Your task to perform on an android device: turn on data saver in the chrome app Image 0: 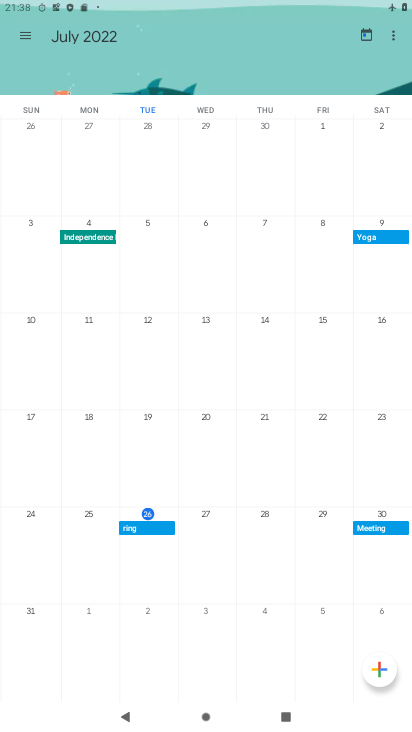
Step 0: drag from (215, 623) to (262, 150)
Your task to perform on an android device: turn on data saver in the chrome app Image 1: 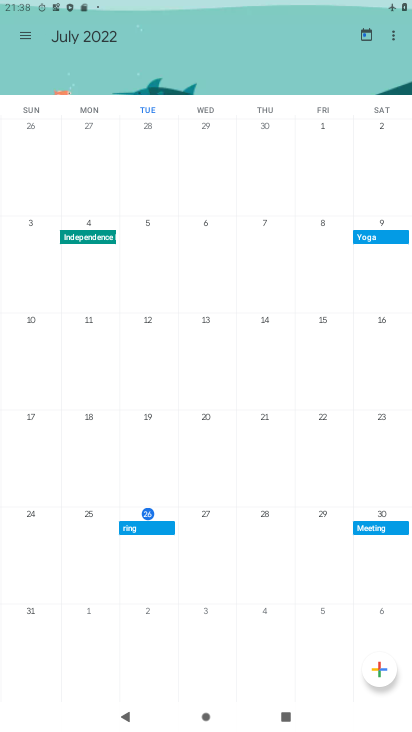
Step 1: press back button
Your task to perform on an android device: turn on data saver in the chrome app Image 2: 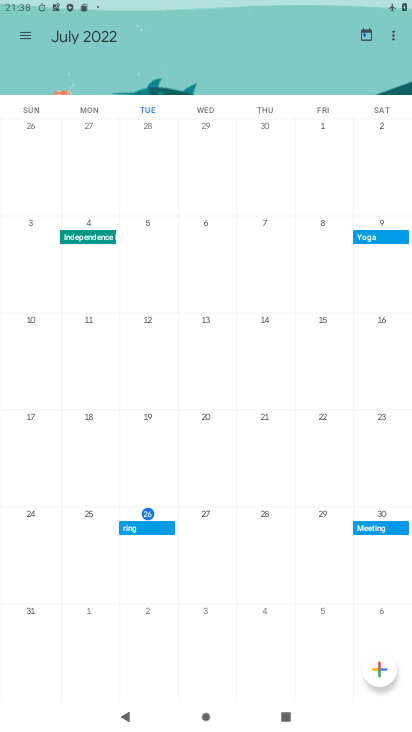
Step 2: press back button
Your task to perform on an android device: turn on data saver in the chrome app Image 3: 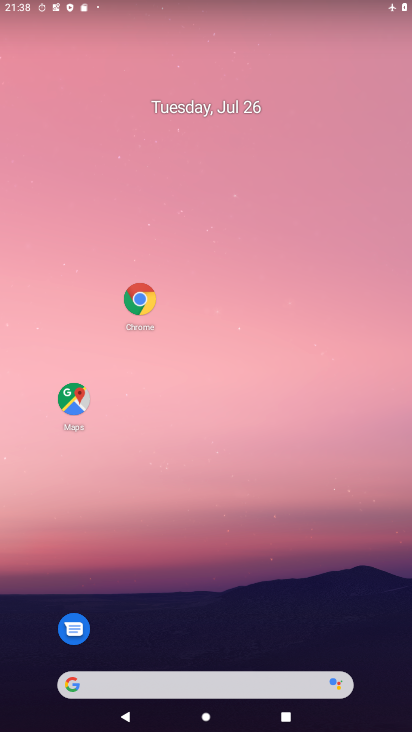
Step 3: click (207, 384)
Your task to perform on an android device: turn on data saver in the chrome app Image 4: 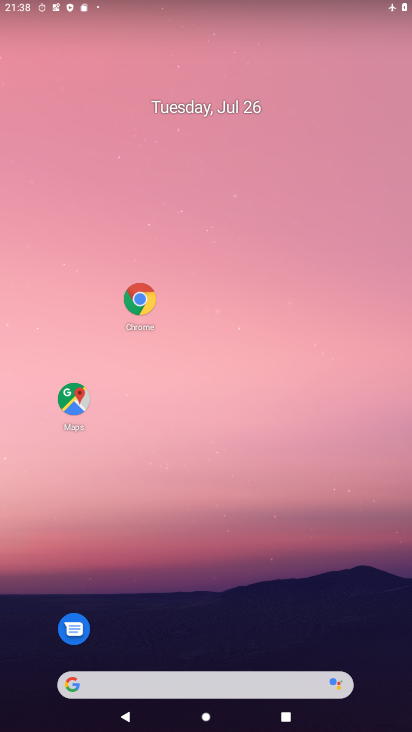
Step 4: click (194, 194)
Your task to perform on an android device: turn on data saver in the chrome app Image 5: 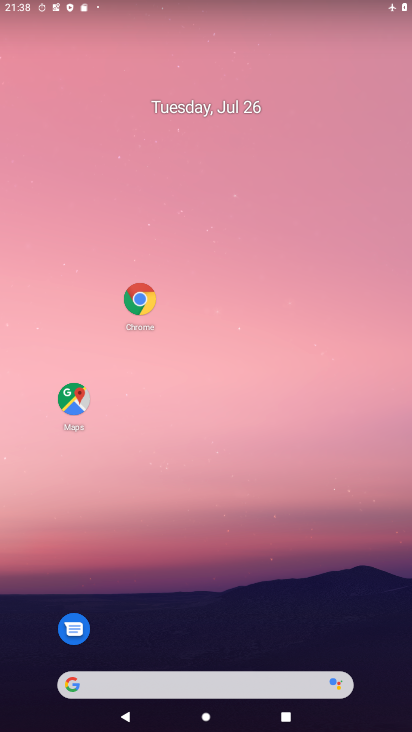
Step 5: drag from (231, 534) to (165, 46)
Your task to perform on an android device: turn on data saver in the chrome app Image 6: 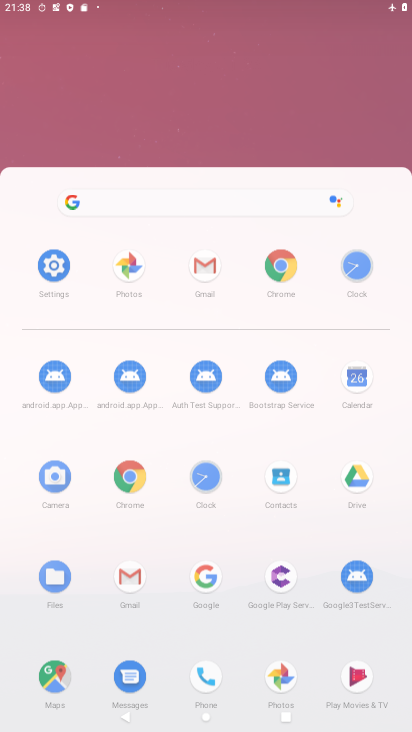
Step 6: click (186, 109)
Your task to perform on an android device: turn on data saver in the chrome app Image 7: 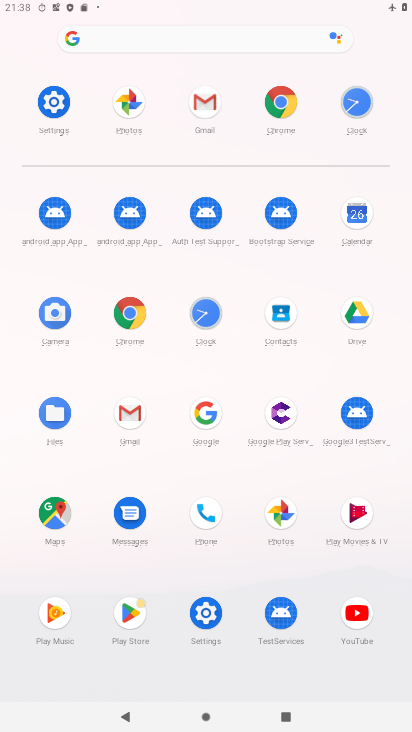
Step 7: drag from (263, 481) to (236, 109)
Your task to perform on an android device: turn on data saver in the chrome app Image 8: 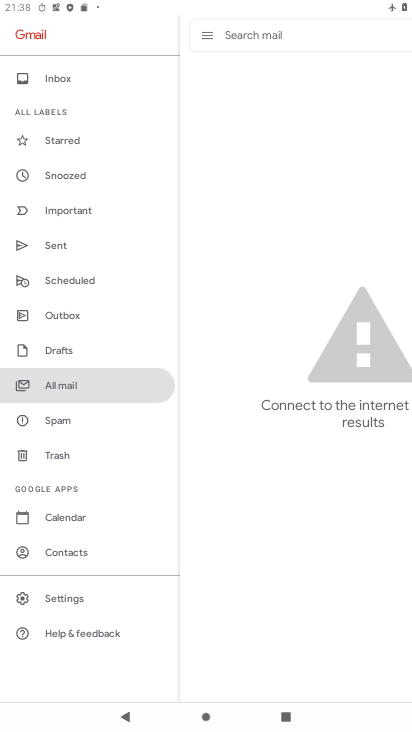
Step 8: press back button
Your task to perform on an android device: turn on data saver in the chrome app Image 9: 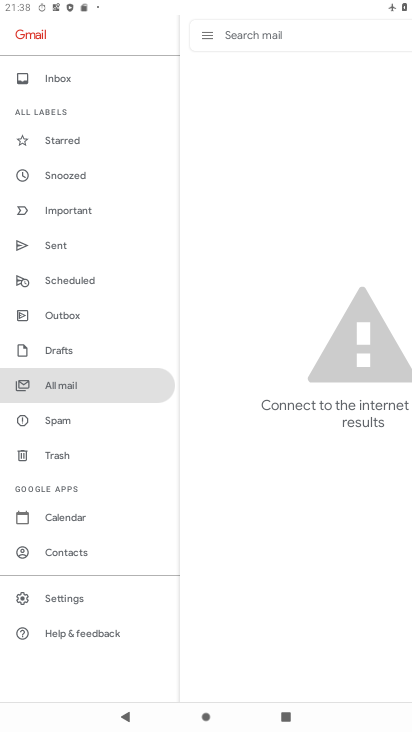
Step 9: press back button
Your task to perform on an android device: turn on data saver in the chrome app Image 10: 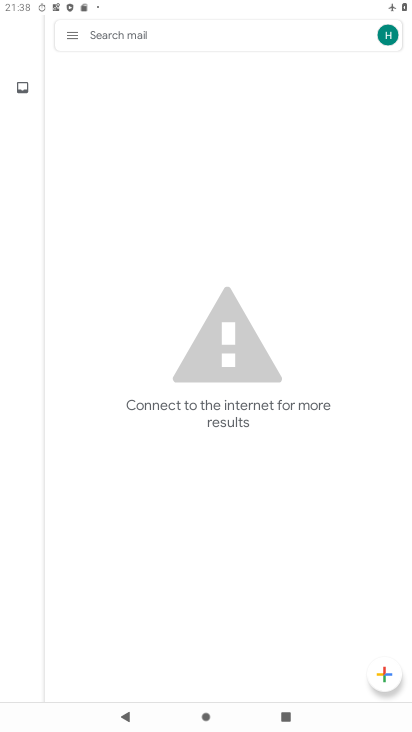
Step 10: press back button
Your task to perform on an android device: turn on data saver in the chrome app Image 11: 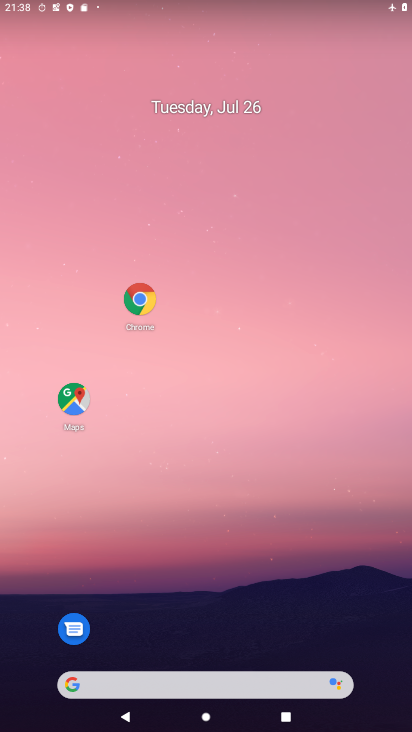
Step 11: drag from (301, 567) to (287, 187)
Your task to perform on an android device: turn on data saver in the chrome app Image 12: 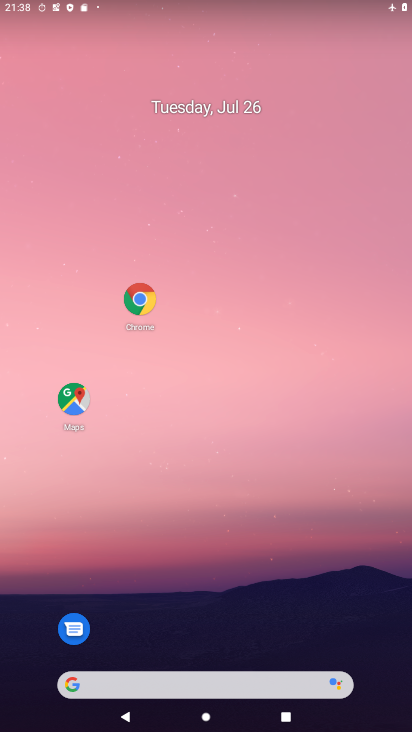
Step 12: drag from (207, 468) to (206, 98)
Your task to perform on an android device: turn on data saver in the chrome app Image 13: 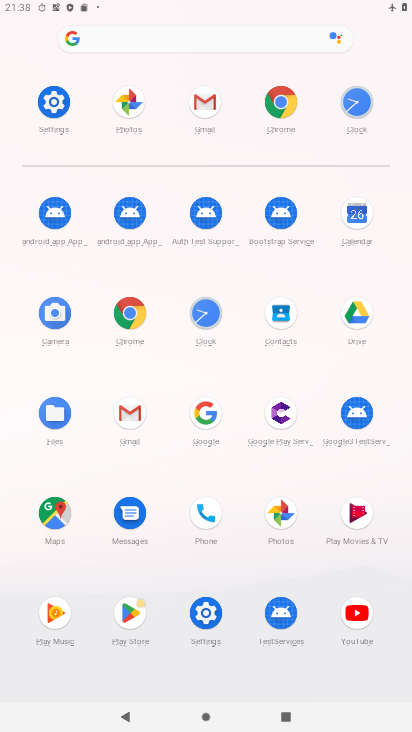
Step 13: drag from (276, 445) to (243, 9)
Your task to perform on an android device: turn on data saver in the chrome app Image 14: 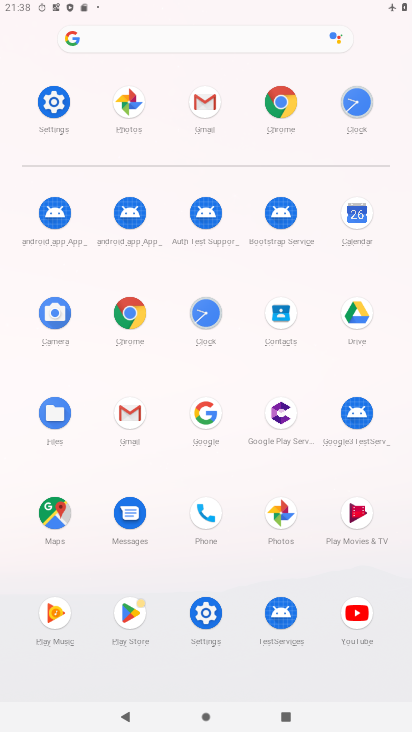
Step 14: drag from (185, 542) to (280, 104)
Your task to perform on an android device: turn on data saver in the chrome app Image 15: 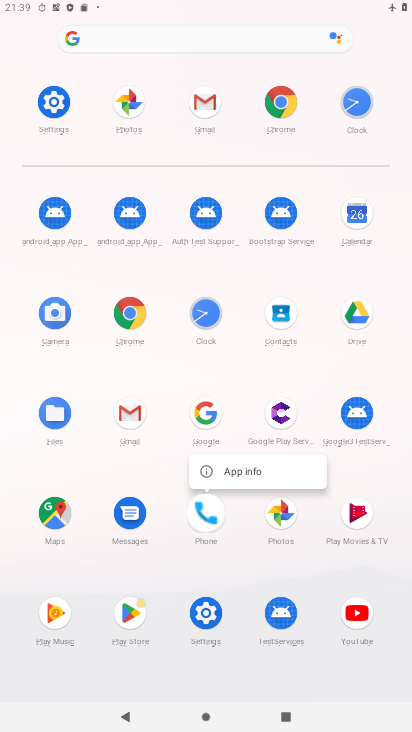
Step 15: click (280, 104)
Your task to perform on an android device: turn on data saver in the chrome app Image 16: 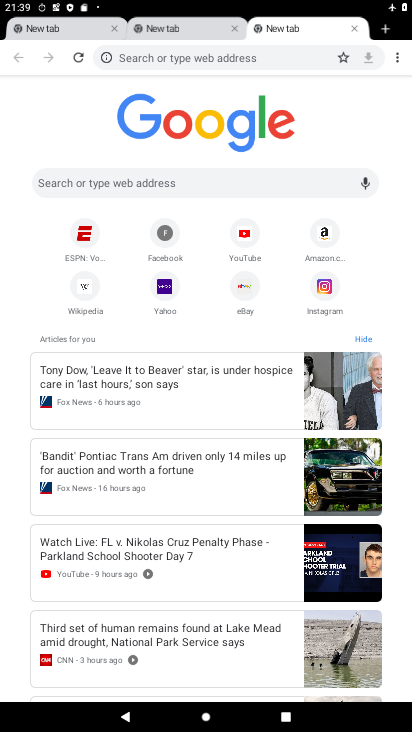
Step 16: drag from (400, 62) to (378, 95)
Your task to perform on an android device: turn on data saver in the chrome app Image 17: 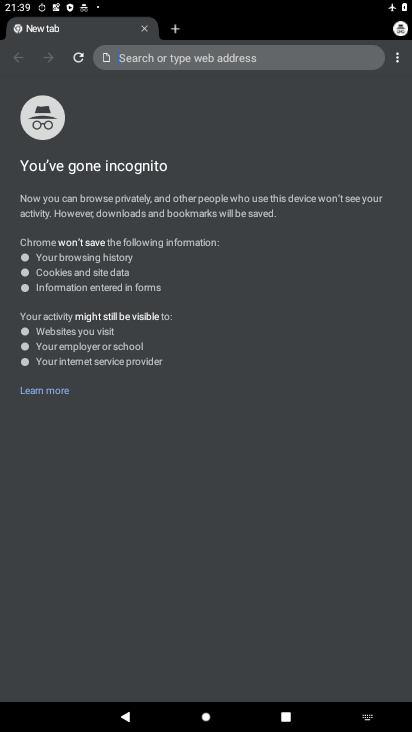
Step 17: drag from (389, 54) to (285, 229)
Your task to perform on an android device: turn on data saver in the chrome app Image 18: 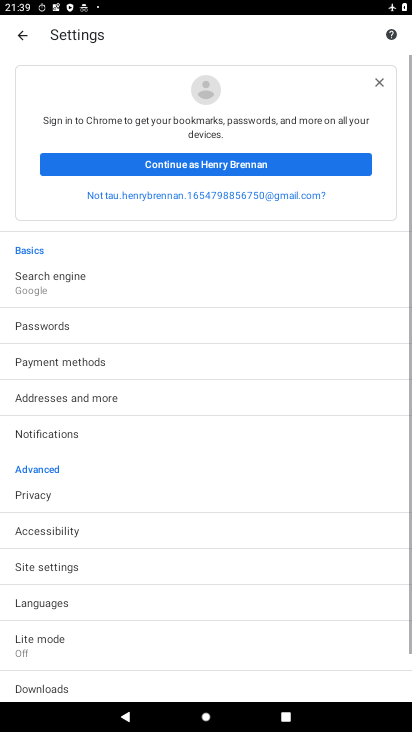
Step 18: drag from (100, 543) to (155, 77)
Your task to perform on an android device: turn on data saver in the chrome app Image 19: 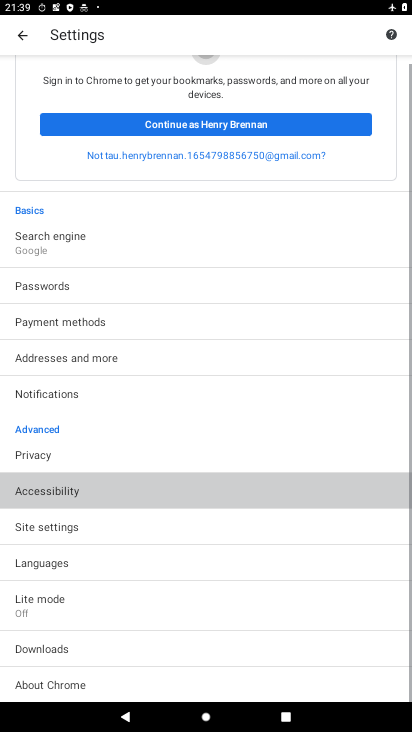
Step 19: drag from (153, 472) to (185, 87)
Your task to perform on an android device: turn on data saver in the chrome app Image 20: 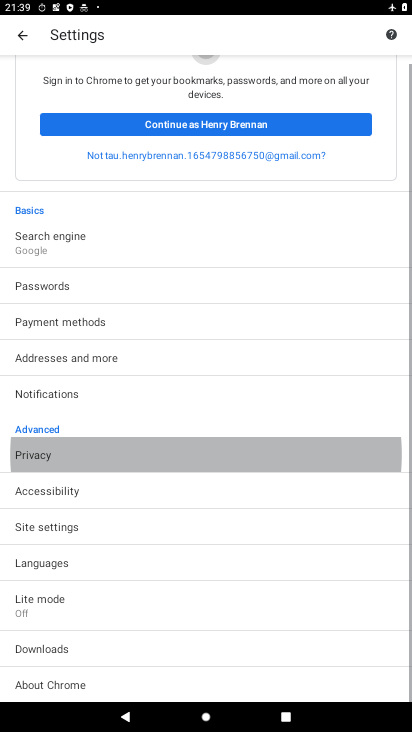
Step 20: drag from (186, 454) to (143, 40)
Your task to perform on an android device: turn on data saver in the chrome app Image 21: 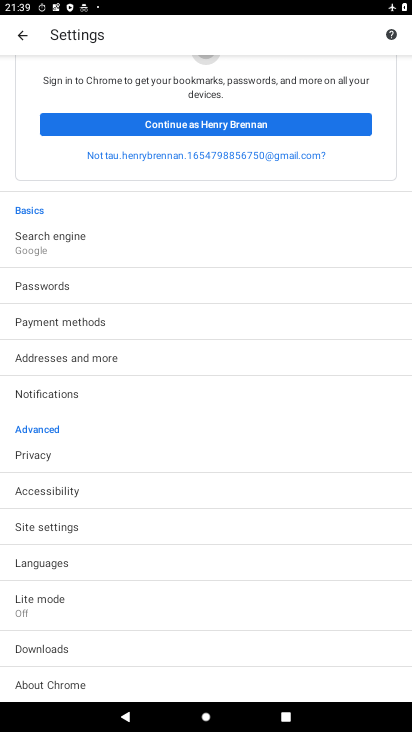
Step 21: click (35, 603)
Your task to perform on an android device: turn on data saver in the chrome app Image 22: 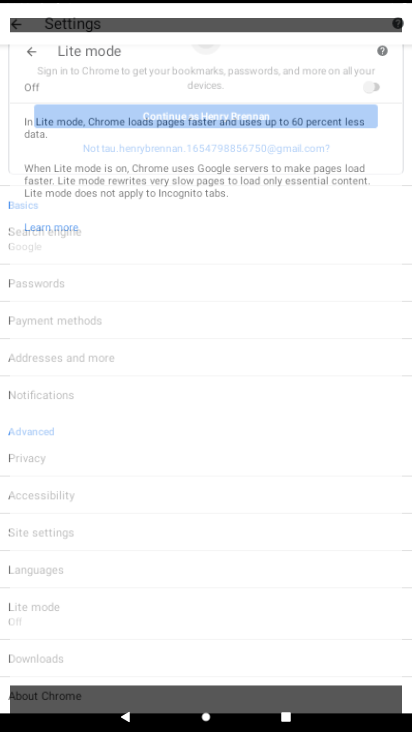
Step 22: click (47, 604)
Your task to perform on an android device: turn on data saver in the chrome app Image 23: 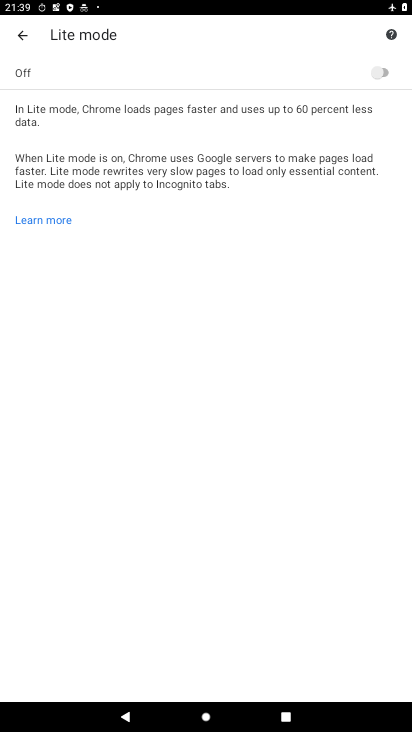
Step 23: click (377, 73)
Your task to perform on an android device: turn on data saver in the chrome app Image 24: 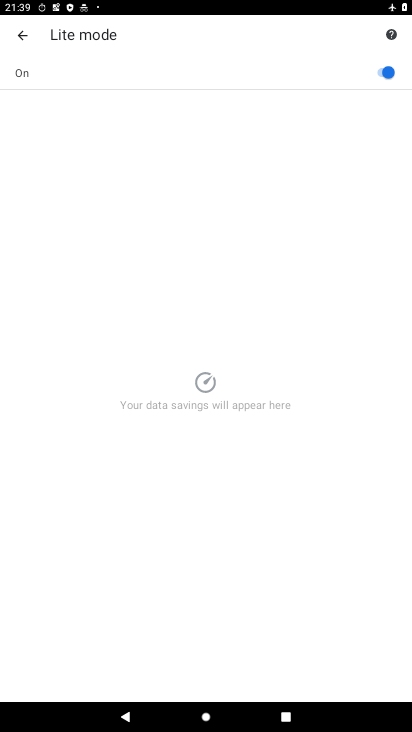
Step 24: task complete